Your task to perform on an android device: check android version Image 0: 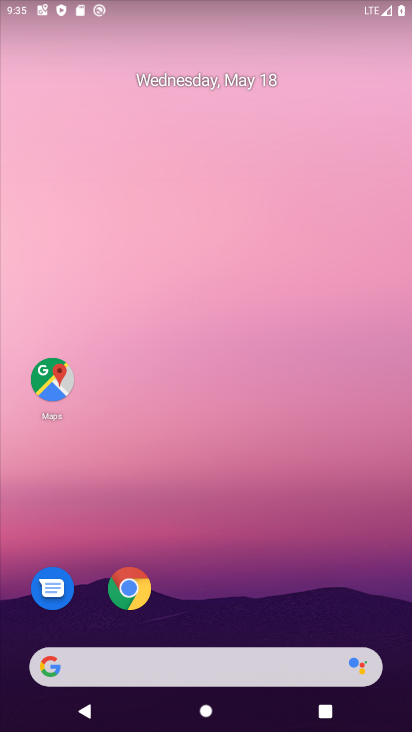
Step 0: drag from (287, 608) to (288, 6)
Your task to perform on an android device: check android version Image 1: 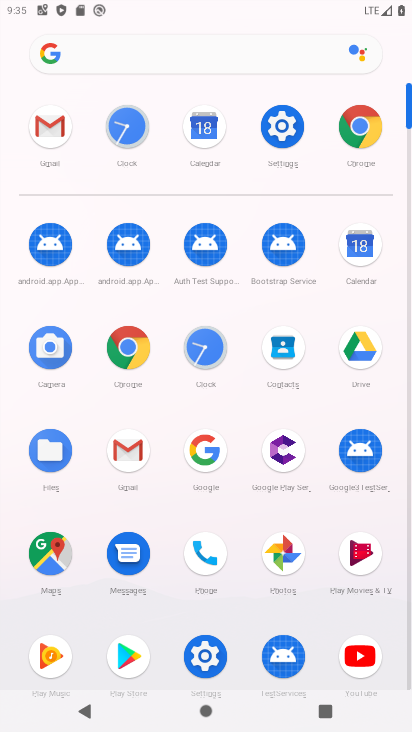
Step 1: click (281, 141)
Your task to perform on an android device: check android version Image 2: 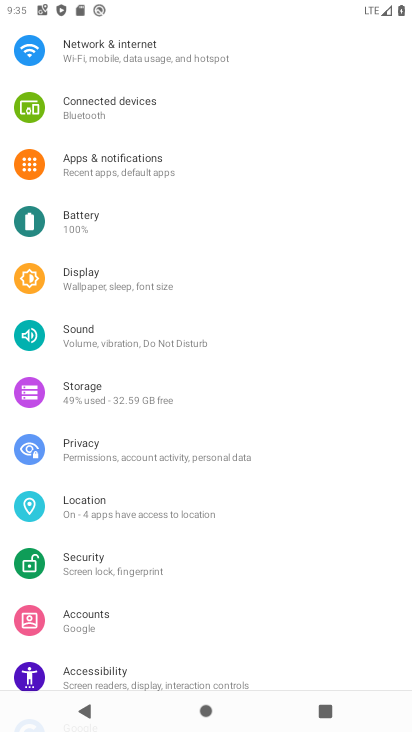
Step 2: drag from (240, 616) to (223, 160)
Your task to perform on an android device: check android version Image 3: 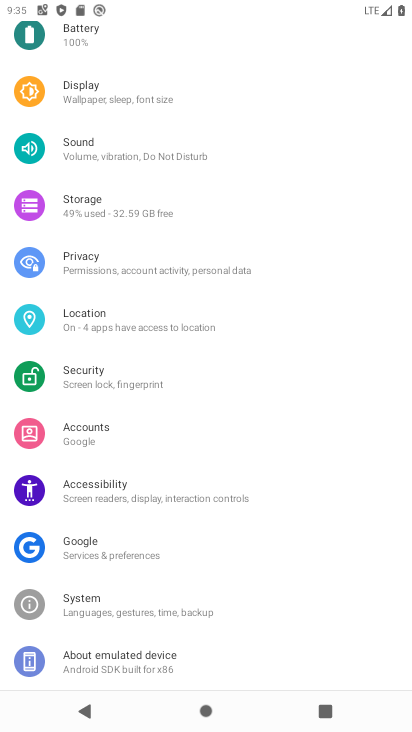
Step 3: click (154, 668)
Your task to perform on an android device: check android version Image 4: 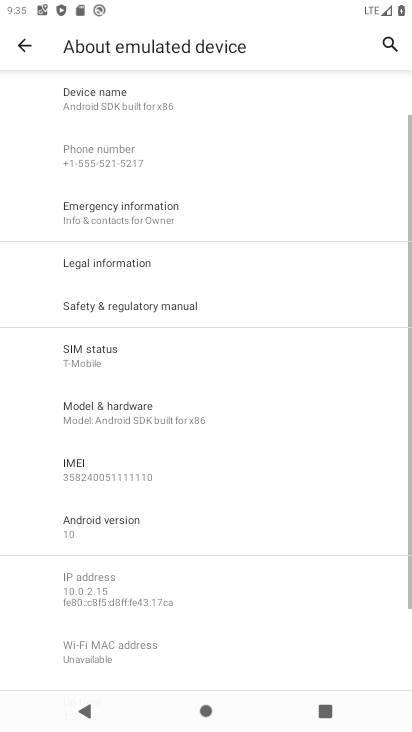
Step 4: click (105, 529)
Your task to perform on an android device: check android version Image 5: 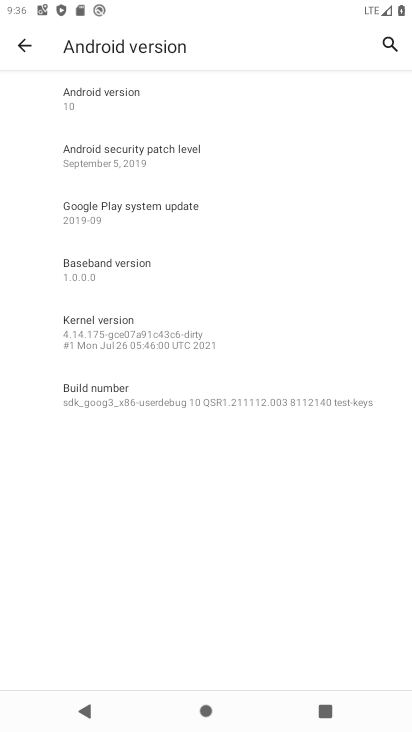
Step 5: task complete